Your task to perform on an android device: Open settings Image 0: 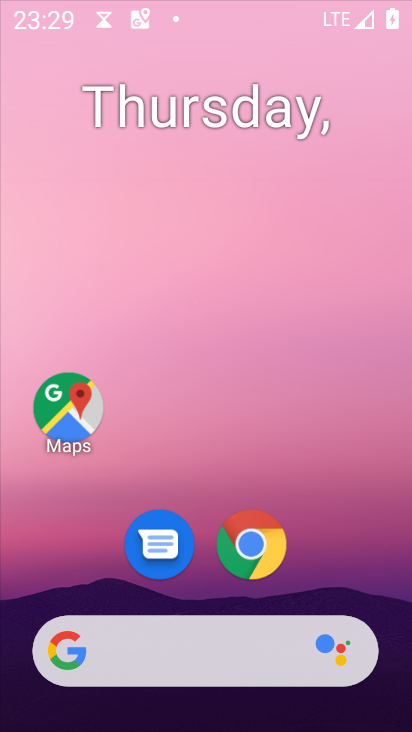
Step 0: click (159, 120)
Your task to perform on an android device: Open settings Image 1: 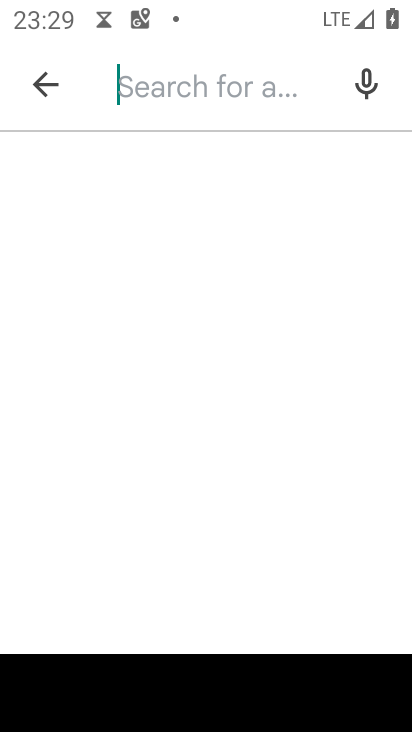
Step 1: press home button
Your task to perform on an android device: Open settings Image 2: 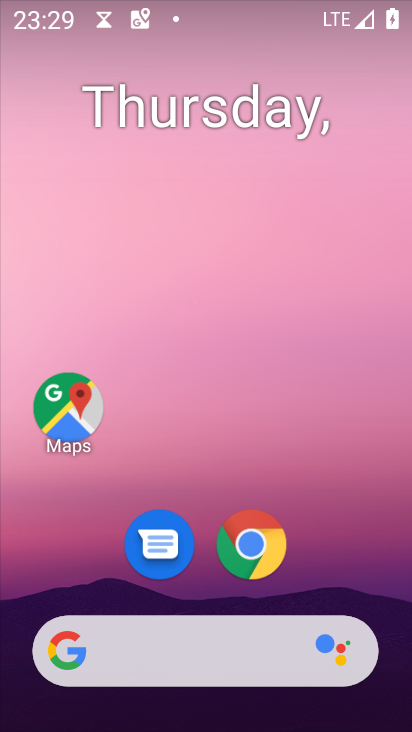
Step 2: drag from (328, 542) to (249, 92)
Your task to perform on an android device: Open settings Image 3: 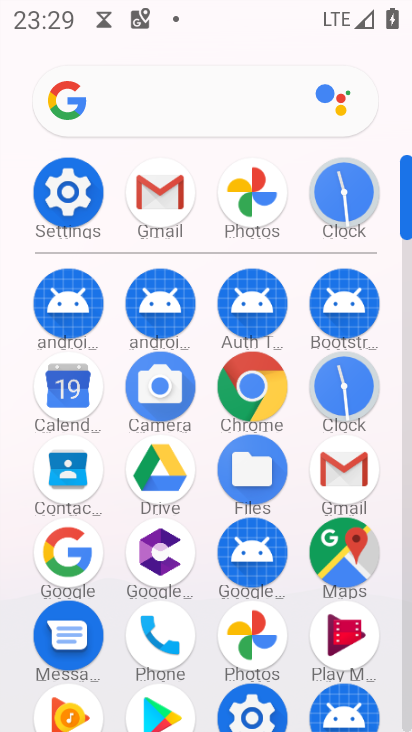
Step 3: click (74, 206)
Your task to perform on an android device: Open settings Image 4: 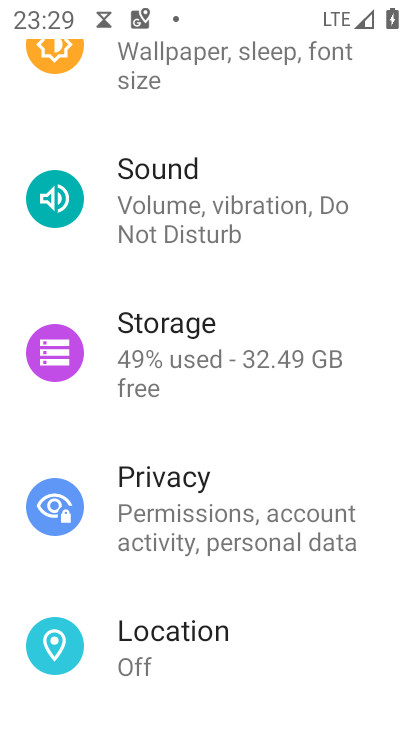
Step 4: task complete